Your task to perform on an android device: allow notifications from all sites in the chrome app Image 0: 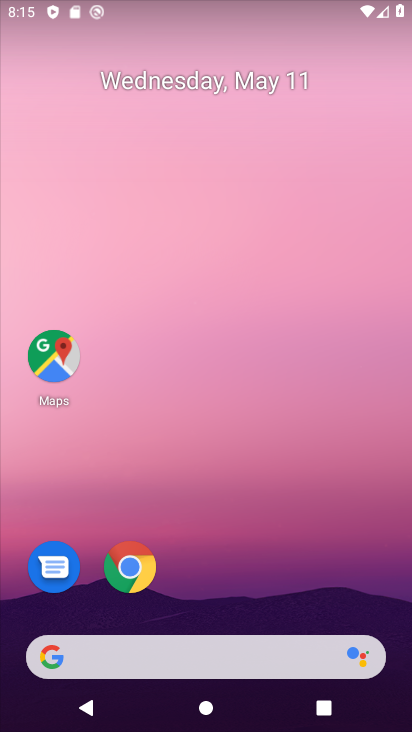
Step 0: drag from (277, 625) to (265, 75)
Your task to perform on an android device: allow notifications from all sites in the chrome app Image 1: 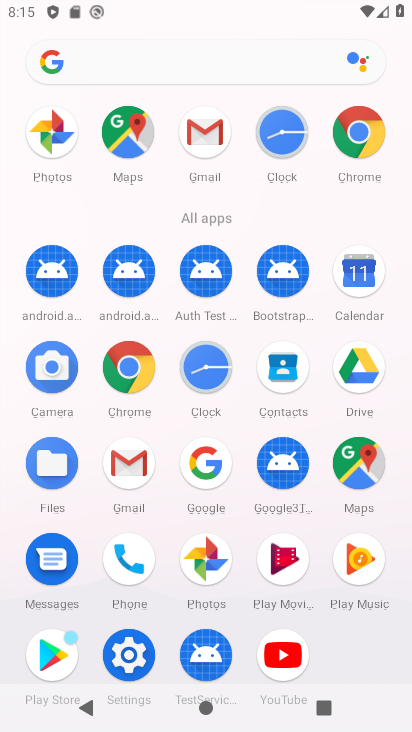
Step 1: click (151, 354)
Your task to perform on an android device: allow notifications from all sites in the chrome app Image 2: 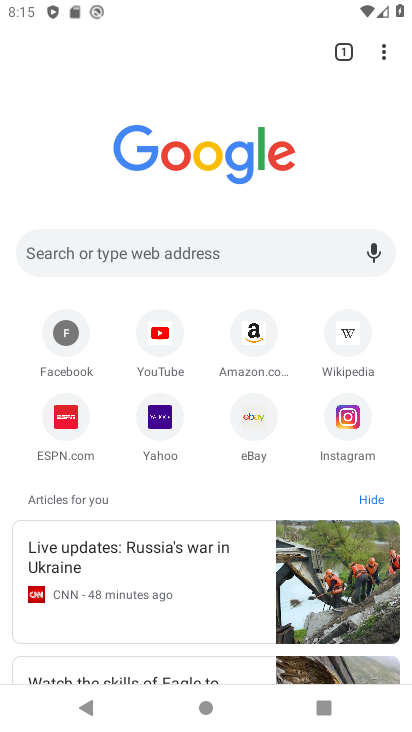
Step 2: click (385, 42)
Your task to perform on an android device: allow notifications from all sites in the chrome app Image 3: 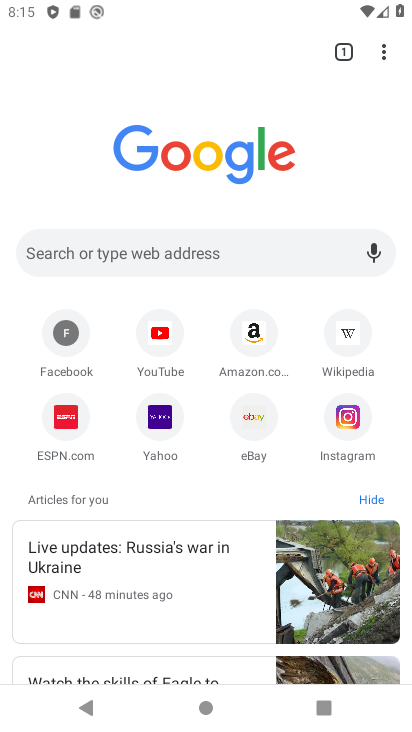
Step 3: drag from (385, 42) to (208, 441)
Your task to perform on an android device: allow notifications from all sites in the chrome app Image 4: 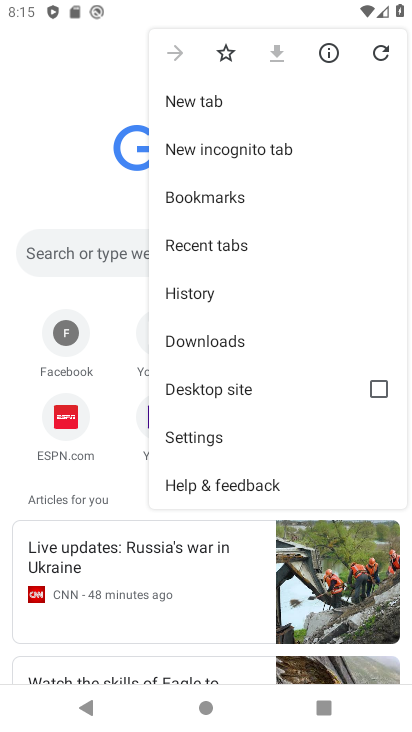
Step 4: click (208, 441)
Your task to perform on an android device: allow notifications from all sites in the chrome app Image 5: 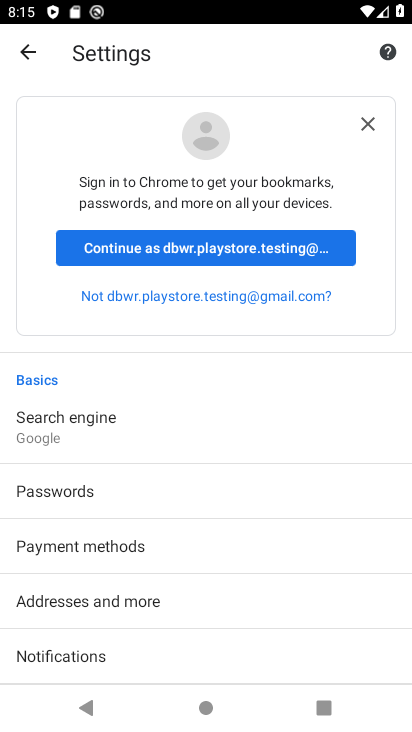
Step 5: drag from (171, 644) to (172, 94)
Your task to perform on an android device: allow notifications from all sites in the chrome app Image 6: 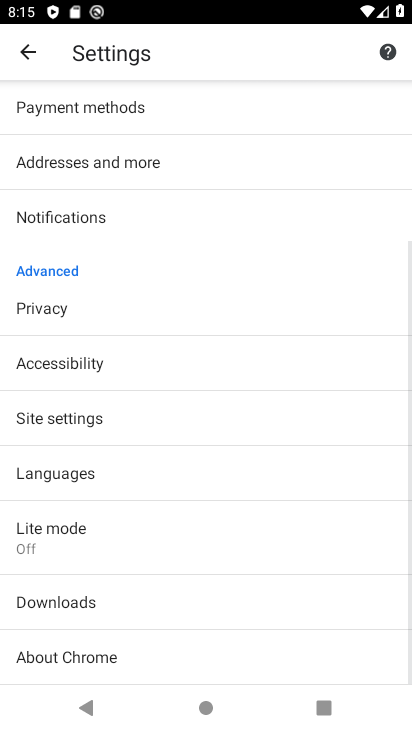
Step 6: click (84, 410)
Your task to perform on an android device: allow notifications from all sites in the chrome app Image 7: 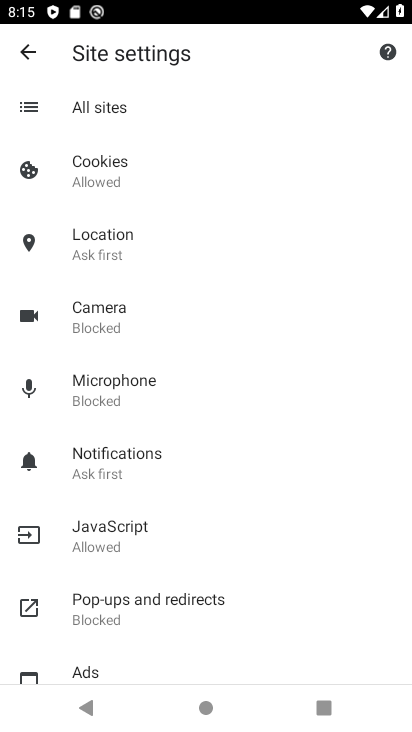
Step 7: click (156, 456)
Your task to perform on an android device: allow notifications from all sites in the chrome app Image 8: 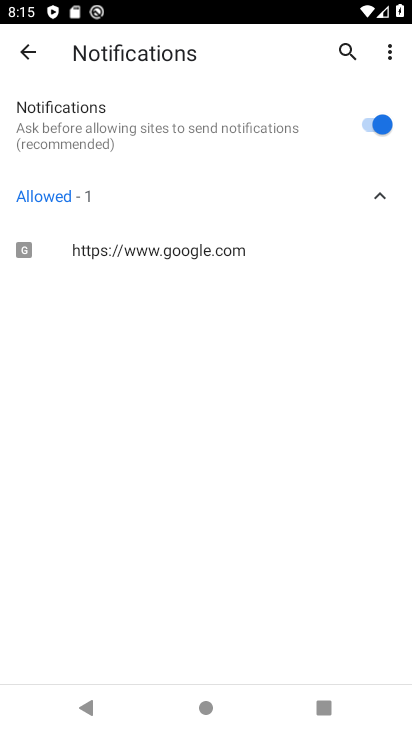
Step 8: click (243, 248)
Your task to perform on an android device: allow notifications from all sites in the chrome app Image 9: 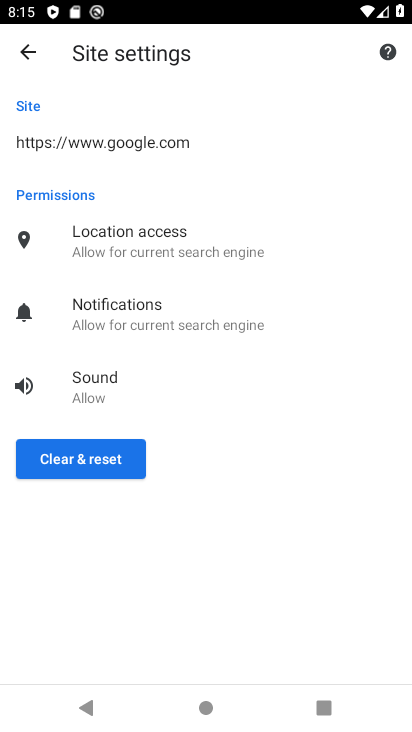
Step 9: task complete